Your task to perform on an android device: open device folders in google photos Image 0: 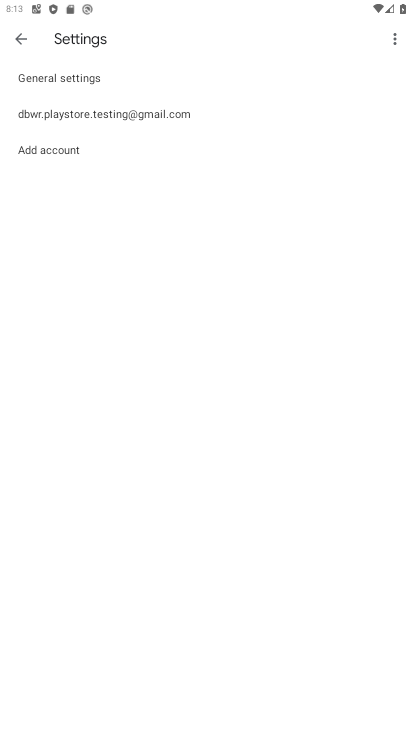
Step 0: press back button
Your task to perform on an android device: open device folders in google photos Image 1: 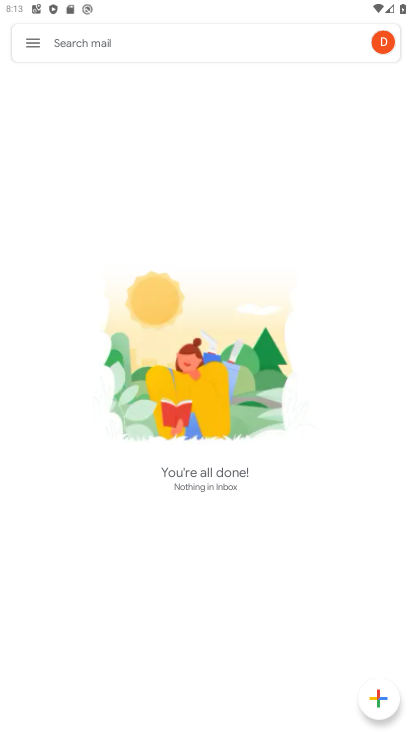
Step 1: press back button
Your task to perform on an android device: open device folders in google photos Image 2: 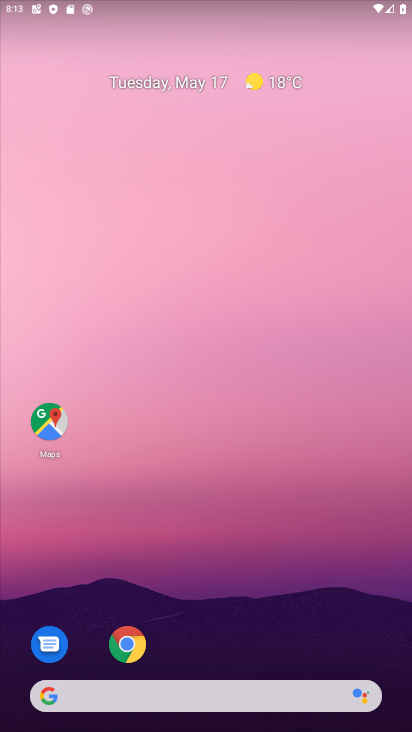
Step 2: drag from (222, 532) to (243, 85)
Your task to perform on an android device: open device folders in google photos Image 3: 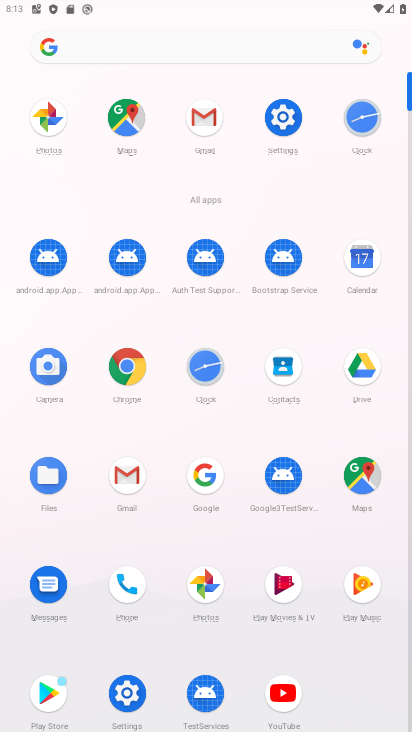
Step 3: click (210, 573)
Your task to perform on an android device: open device folders in google photos Image 4: 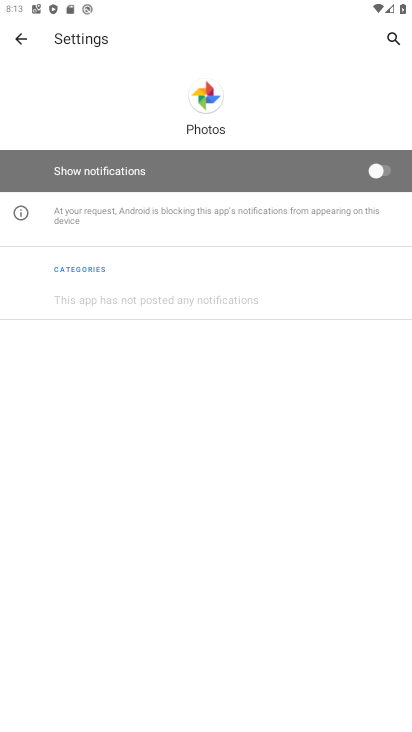
Step 4: click (14, 39)
Your task to perform on an android device: open device folders in google photos Image 5: 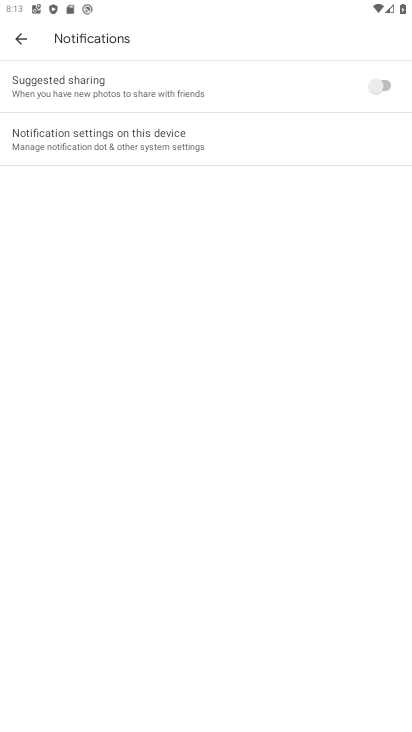
Step 5: click (20, 41)
Your task to perform on an android device: open device folders in google photos Image 6: 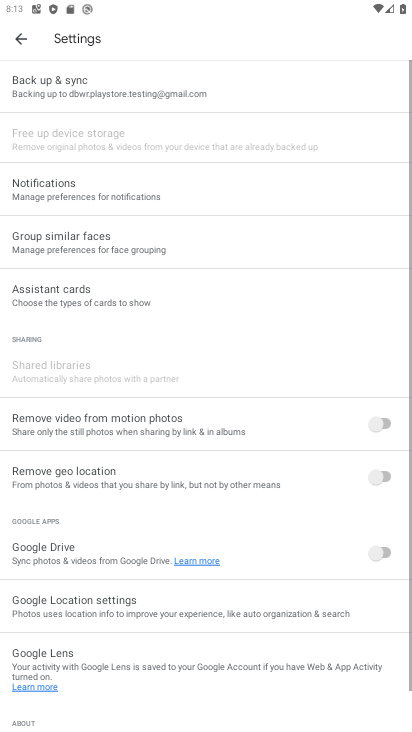
Step 6: click (20, 41)
Your task to perform on an android device: open device folders in google photos Image 7: 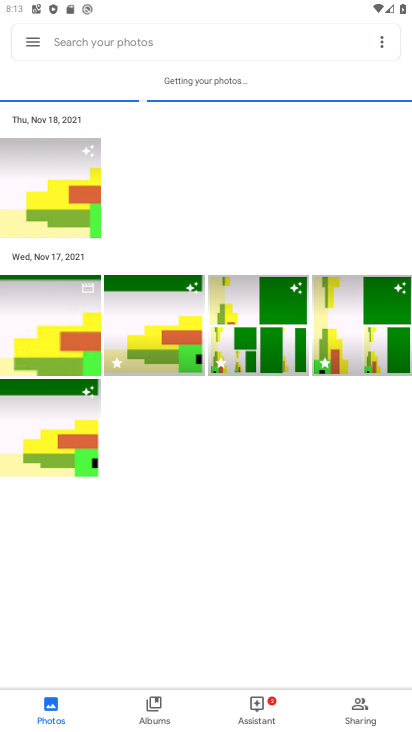
Step 7: click (31, 37)
Your task to perform on an android device: open device folders in google photos Image 8: 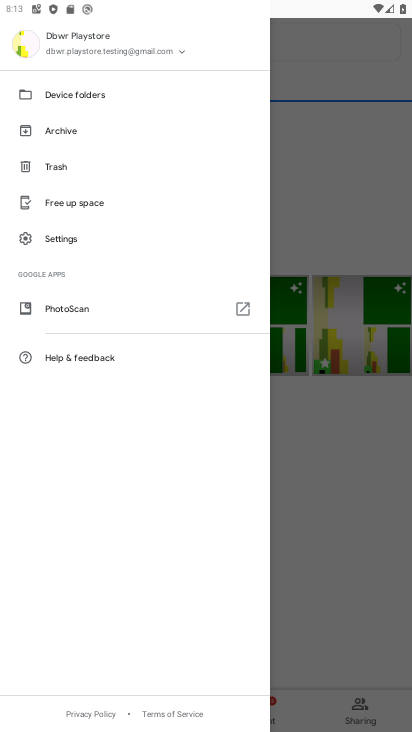
Step 8: click (93, 91)
Your task to perform on an android device: open device folders in google photos Image 9: 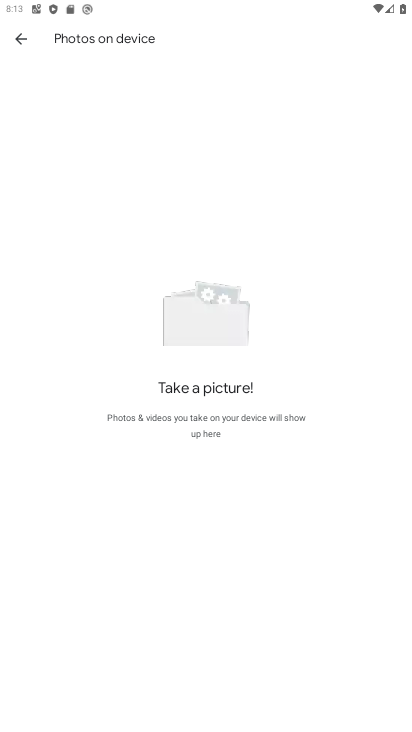
Step 9: task complete